Your task to perform on an android device: Search for sushi restaurants on Maps Image 0: 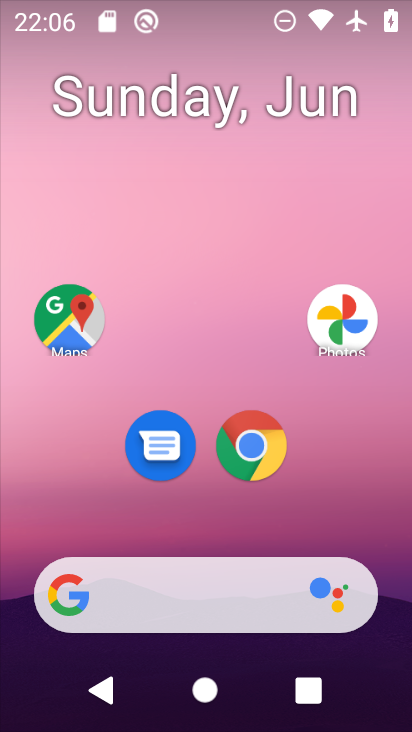
Step 0: press home button
Your task to perform on an android device: Search for sushi restaurants on Maps Image 1: 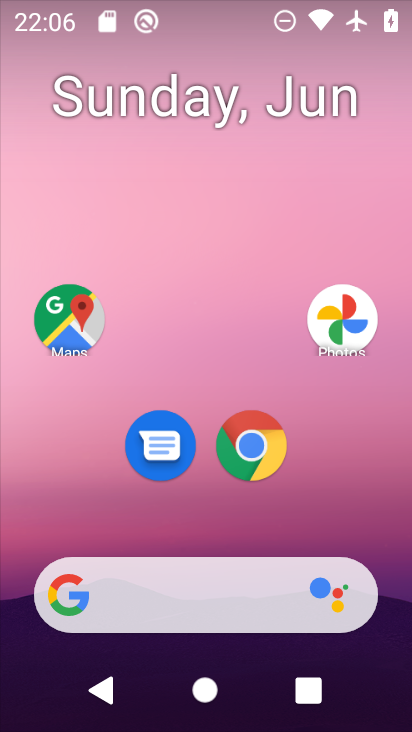
Step 1: click (57, 330)
Your task to perform on an android device: Search for sushi restaurants on Maps Image 2: 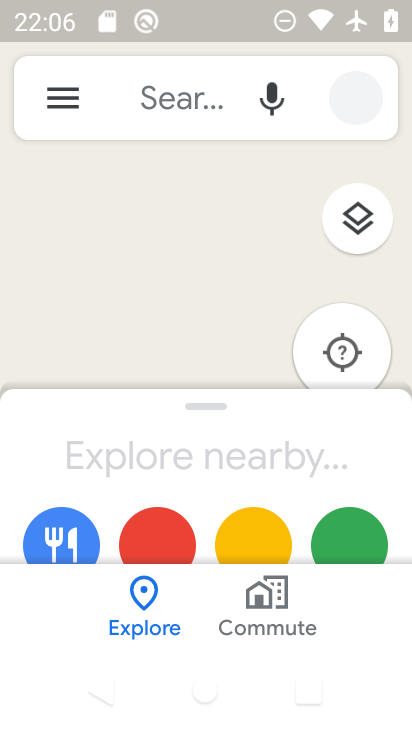
Step 2: click (192, 91)
Your task to perform on an android device: Search for sushi restaurants on Maps Image 3: 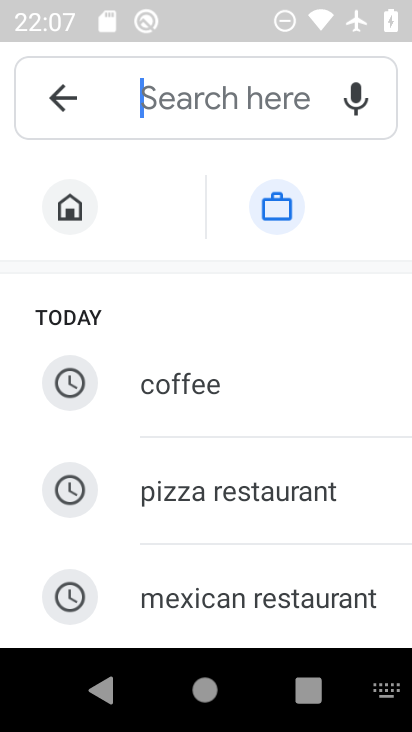
Step 3: type "sushi restaurants "
Your task to perform on an android device: Search for sushi restaurants on Maps Image 4: 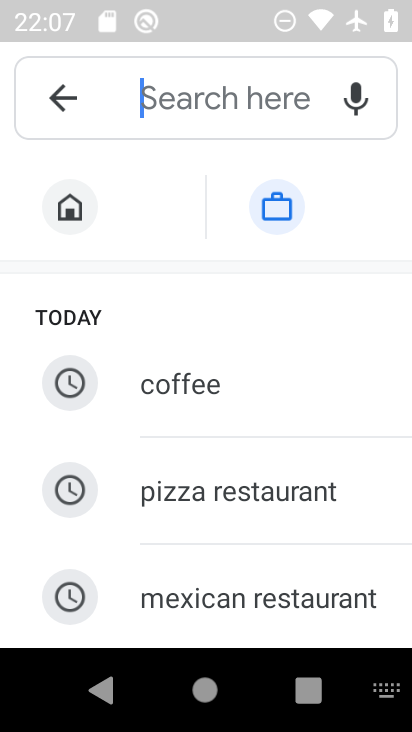
Step 4: click (211, 92)
Your task to perform on an android device: Search for sushi restaurants on Maps Image 5: 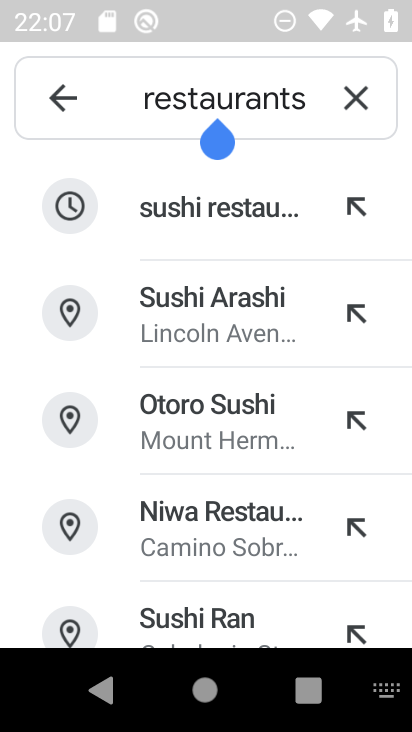
Step 5: click (184, 219)
Your task to perform on an android device: Search for sushi restaurants on Maps Image 6: 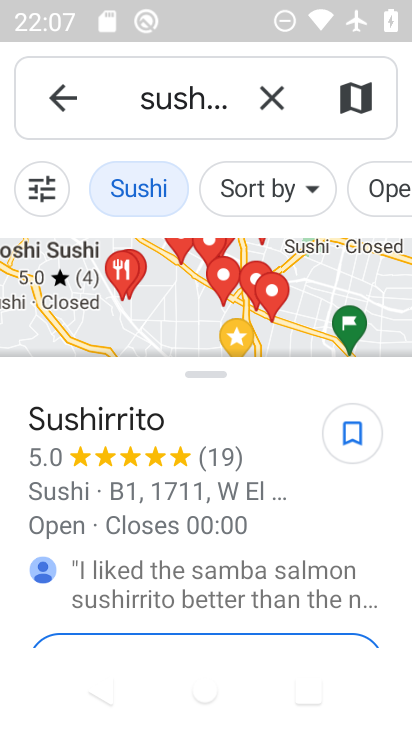
Step 6: task complete